Your task to perform on an android device: Go to notification settings Image 0: 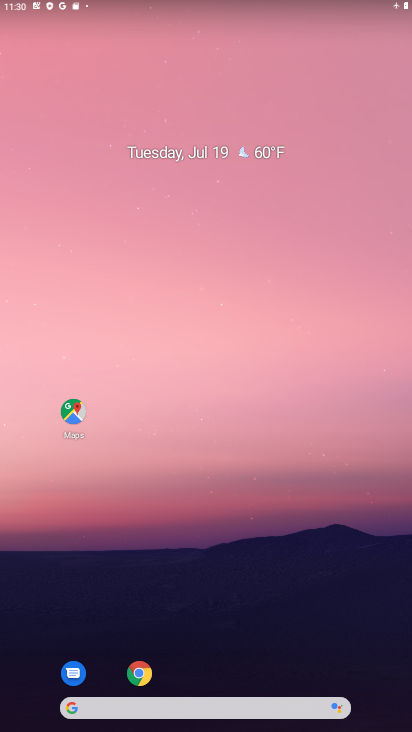
Step 0: drag from (393, 648) to (307, 100)
Your task to perform on an android device: Go to notification settings Image 1: 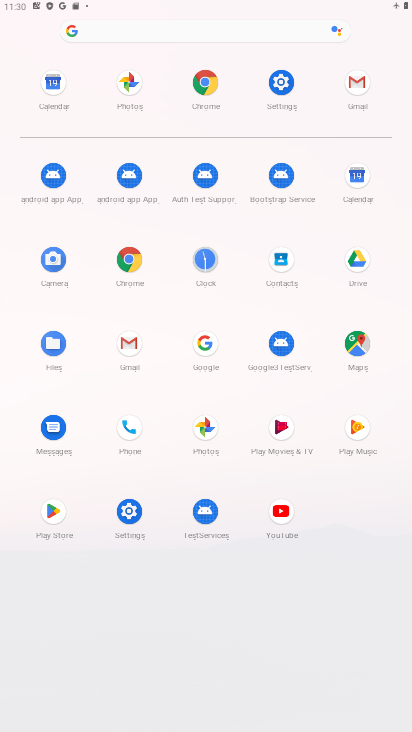
Step 1: click (128, 513)
Your task to perform on an android device: Go to notification settings Image 2: 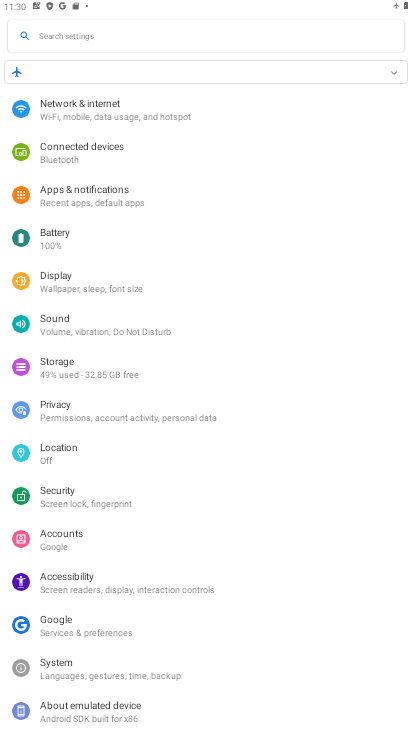
Step 2: click (80, 182)
Your task to perform on an android device: Go to notification settings Image 3: 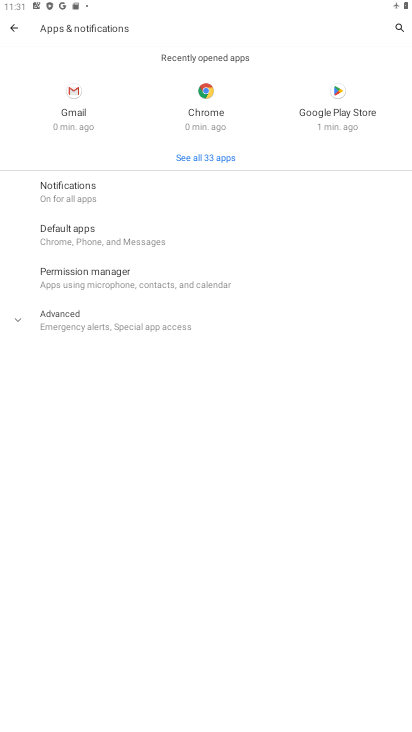
Step 3: click (60, 185)
Your task to perform on an android device: Go to notification settings Image 4: 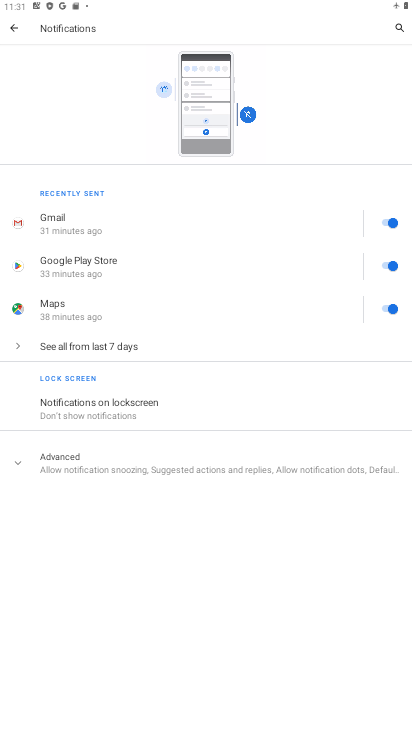
Step 4: click (16, 460)
Your task to perform on an android device: Go to notification settings Image 5: 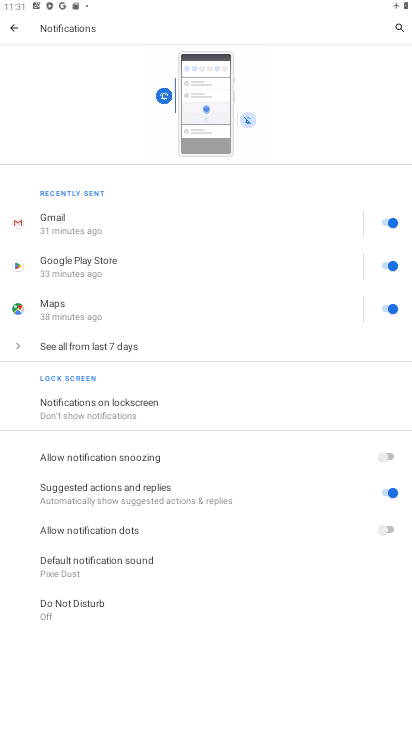
Step 5: task complete